Your task to perform on an android device: Open Chrome and go to settings Image 0: 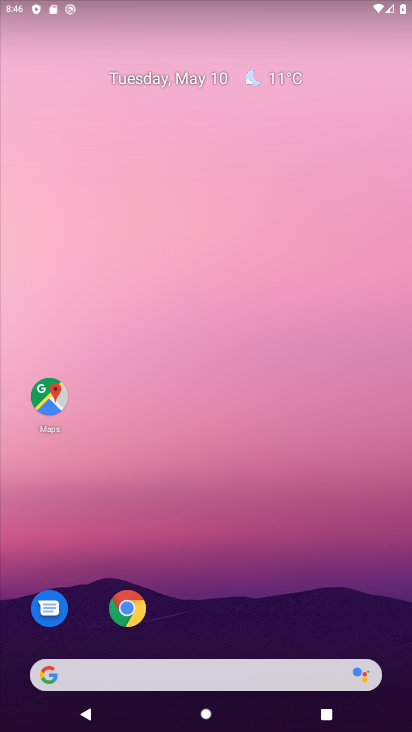
Step 0: click (126, 607)
Your task to perform on an android device: Open Chrome and go to settings Image 1: 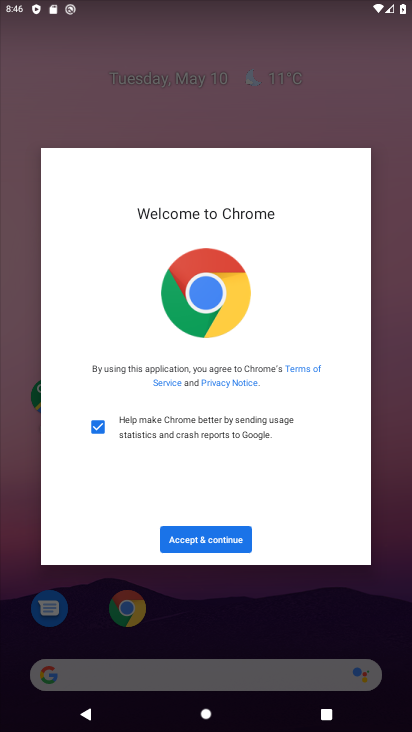
Step 1: click (188, 538)
Your task to perform on an android device: Open Chrome and go to settings Image 2: 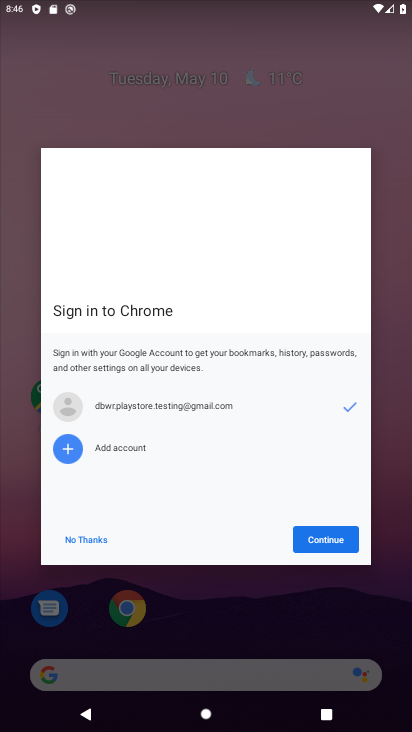
Step 2: click (317, 542)
Your task to perform on an android device: Open Chrome and go to settings Image 3: 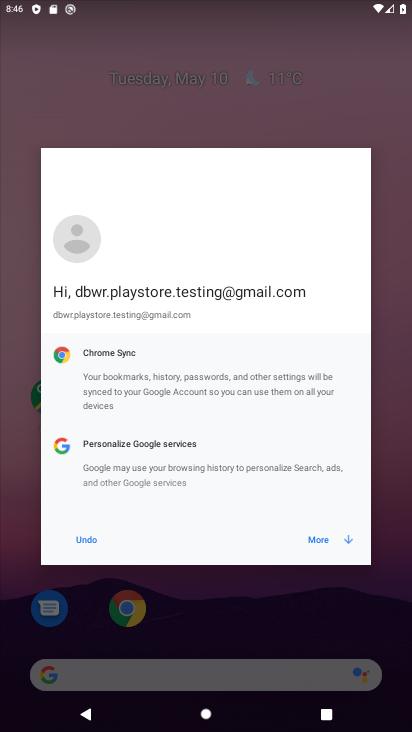
Step 3: click (317, 542)
Your task to perform on an android device: Open Chrome and go to settings Image 4: 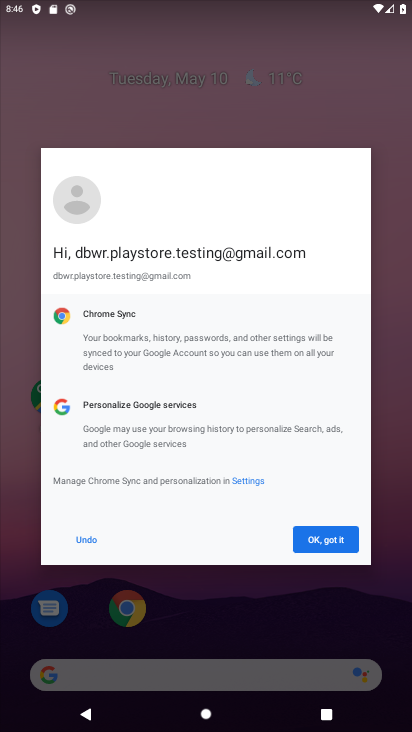
Step 4: click (317, 542)
Your task to perform on an android device: Open Chrome and go to settings Image 5: 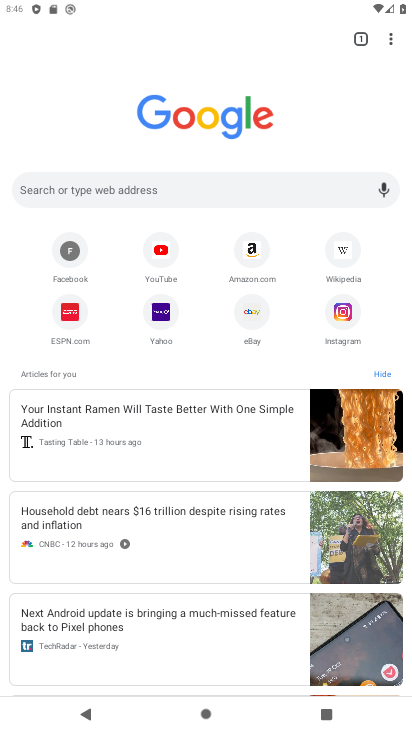
Step 5: click (391, 40)
Your task to perform on an android device: Open Chrome and go to settings Image 6: 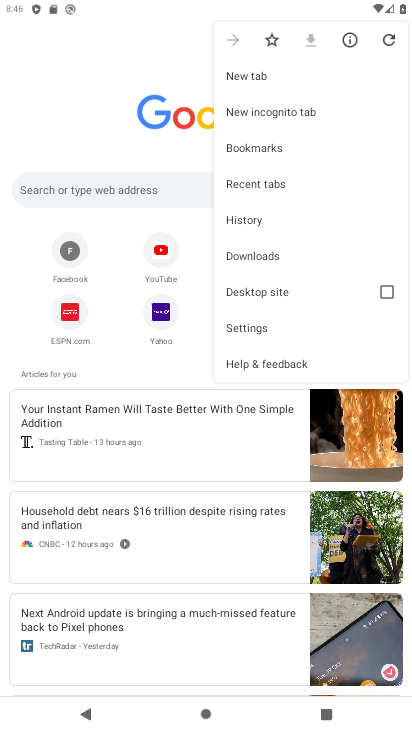
Step 6: click (260, 329)
Your task to perform on an android device: Open Chrome and go to settings Image 7: 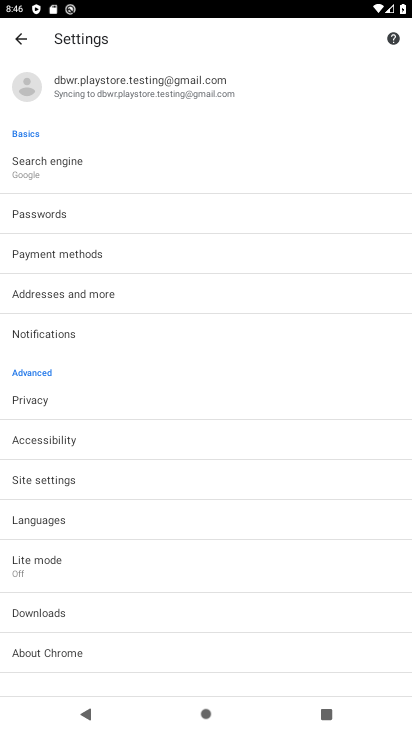
Step 7: task complete